Your task to perform on an android device: toggle notifications settings in the gmail app Image 0: 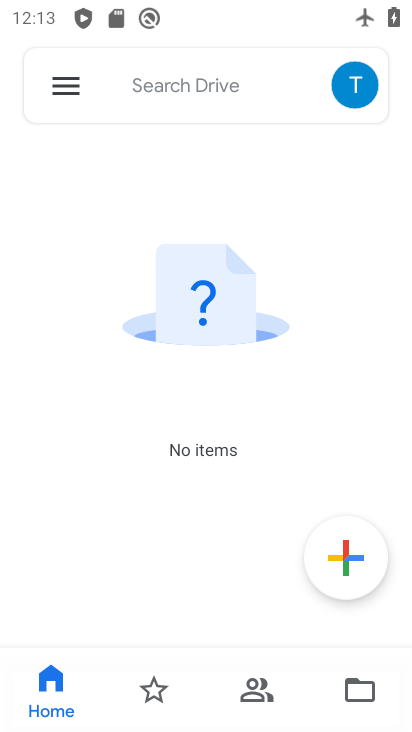
Step 0: click (378, 566)
Your task to perform on an android device: toggle notifications settings in the gmail app Image 1: 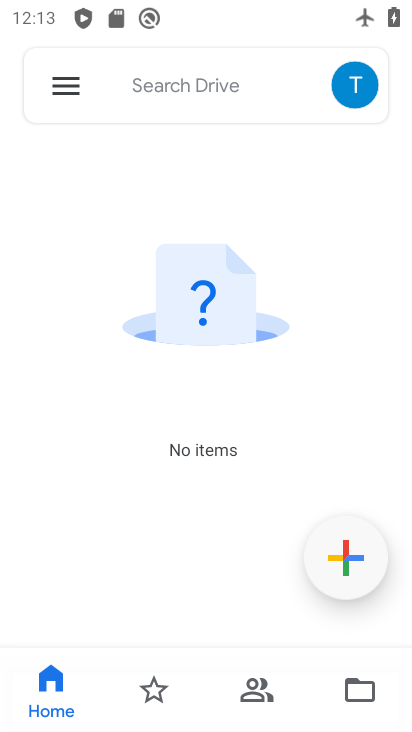
Step 1: press home button
Your task to perform on an android device: toggle notifications settings in the gmail app Image 2: 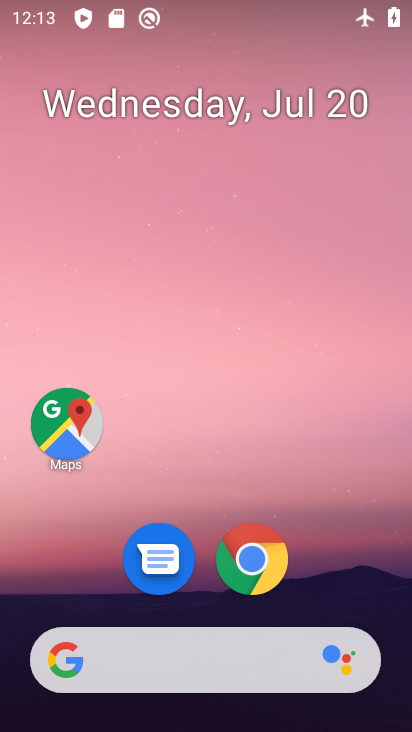
Step 2: drag from (347, 584) to (349, 114)
Your task to perform on an android device: toggle notifications settings in the gmail app Image 3: 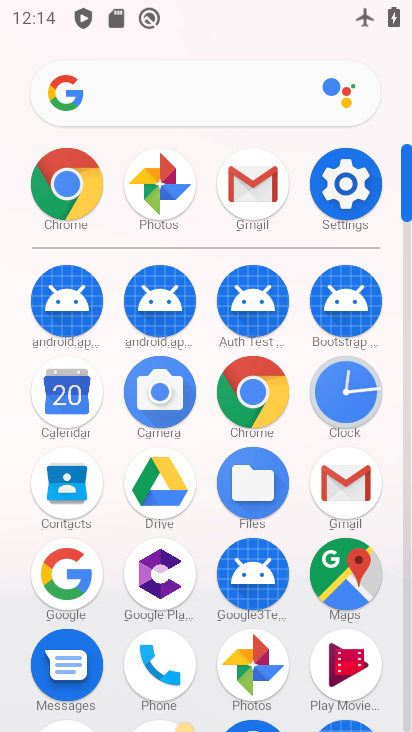
Step 3: click (346, 479)
Your task to perform on an android device: toggle notifications settings in the gmail app Image 4: 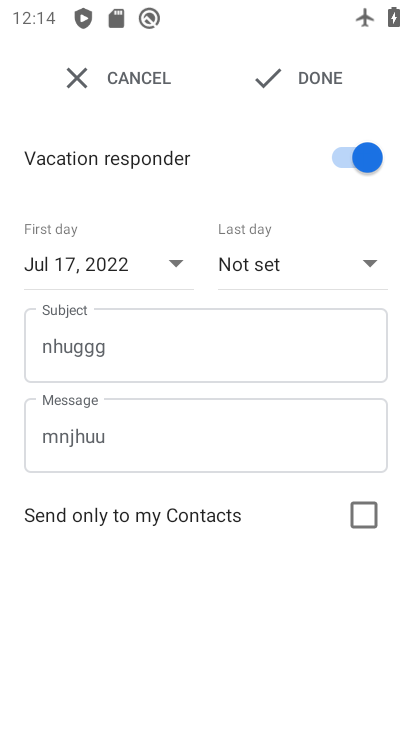
Step 4: press back button
Your task to perform on an android device: toggle notifications settings in the gmail app Image 5: 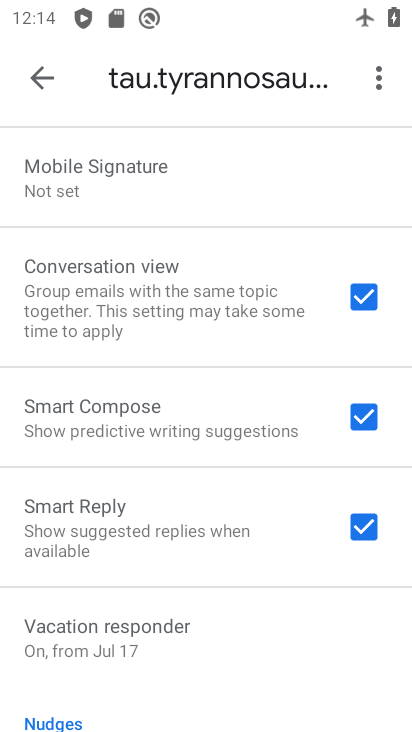
Step 5: drag from (251, 396) to (251, 469)
Your task to perform on an android device: toggle notifications settings in the gmail app Image 6: 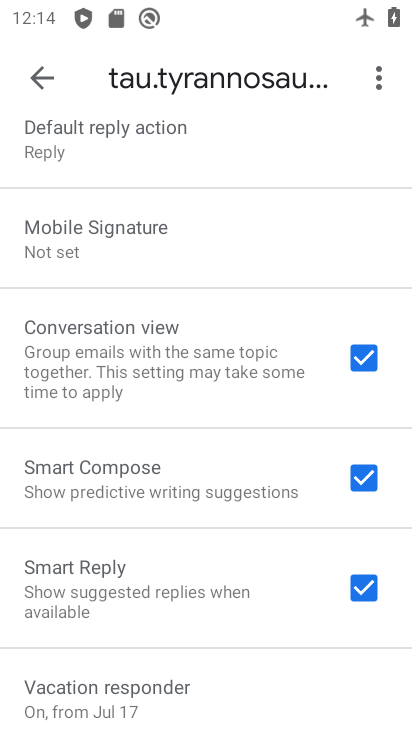
Step 6: drag from (271, 348) to (266, 431)
Your task to perform on an android device: toggle notifications settings in the gmail app Image 7: 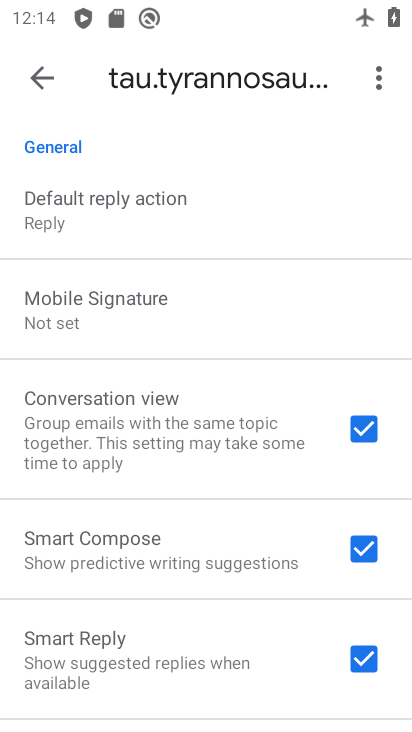
Step 7: drag from (258, 307) to (259, 405)
Your task to perform on an android device: toggle notifications settings in the gmail app Image 8: 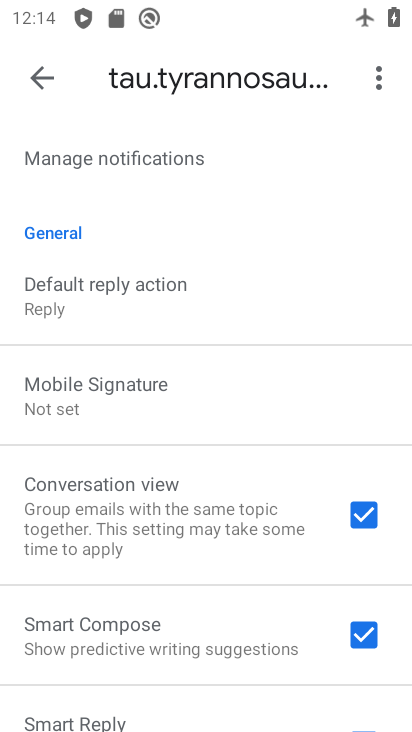
Step 8: drag from (256, 296) to (263, 404)
Your task to perform on an android device: toggle notifications settings in the gmail app Image 9: 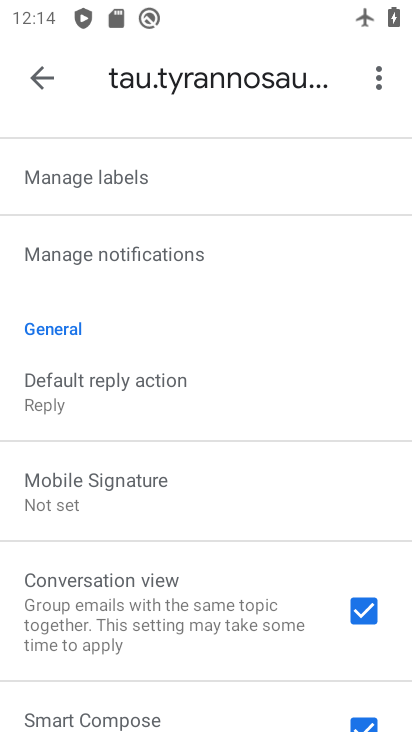
Step 9: drag from (271, 306) to (271, 395)
Your task to perform on an android device: toggle notifications settings in the gmail app Image 10: 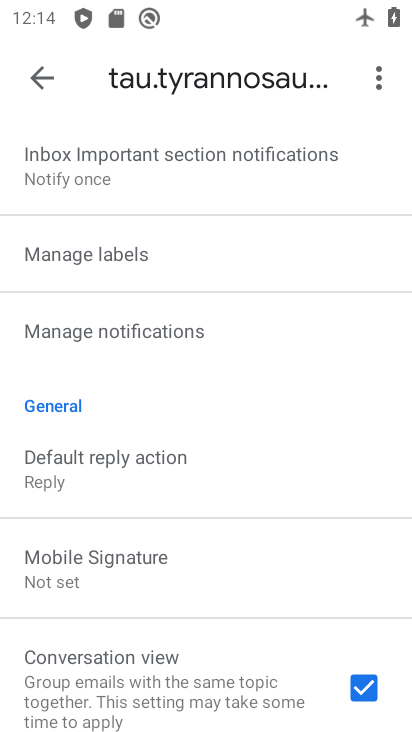
Step 10: drag from (273, 269) to (268, 373)
Your task to perform on an android device: toggle notifications settings in the gmail app Image 11: 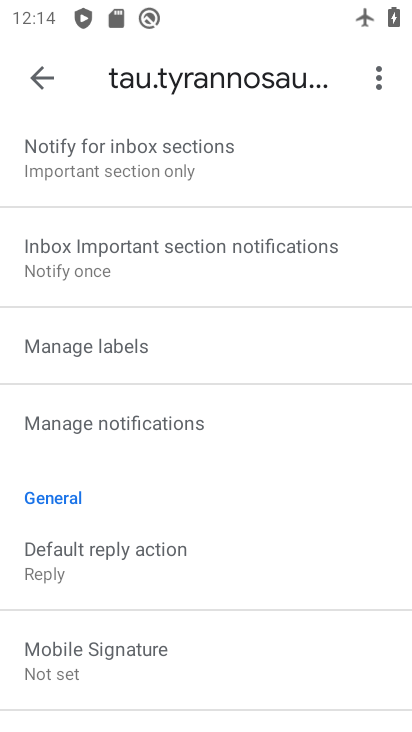
Step 11: drag from (272, 345) to (272, 435)
Your task to perform on an android device: toggle notifications settings in the gmail app Image 12: 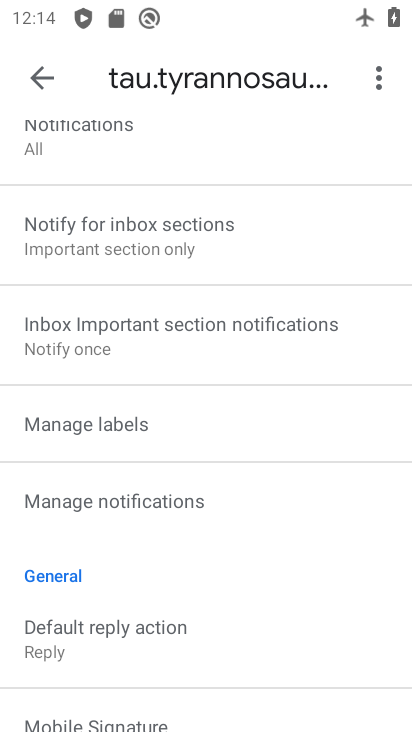
Step 12: click (248, 490)
Your task to perform on an android device: toggle notifications settings in the gmail app Image 13: 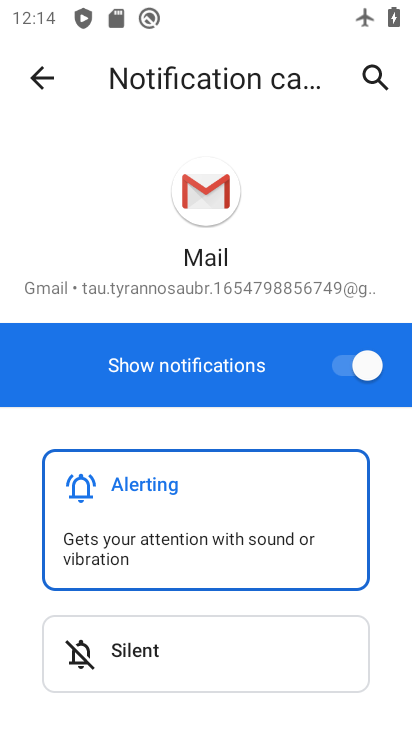
Step 13: click (354, 377)
Your task to perform on an android device: toggle notifications settings in the gmail app Image 14: 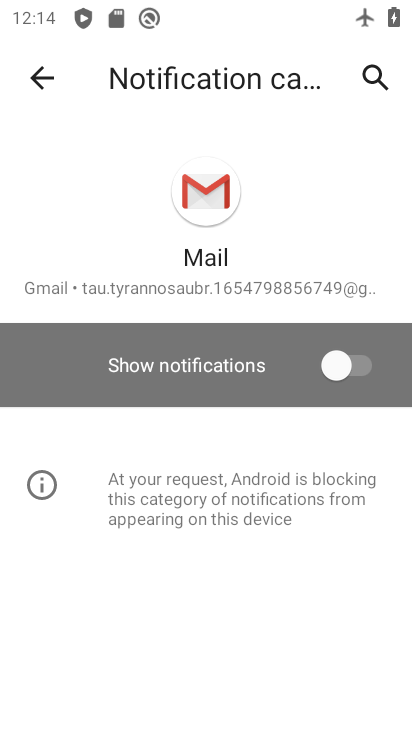
Step 14: task complete